Your task to perform on an android device: open device folders in google photos Image 0: 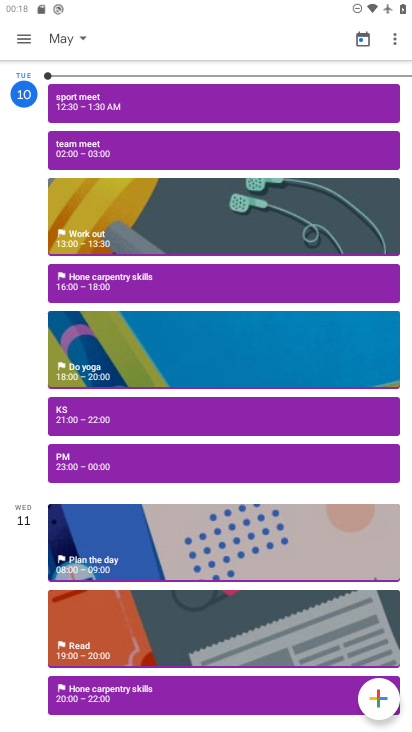
Step 0: press home button
Your task to perform on an android device: open device folders in google photos Image 1: 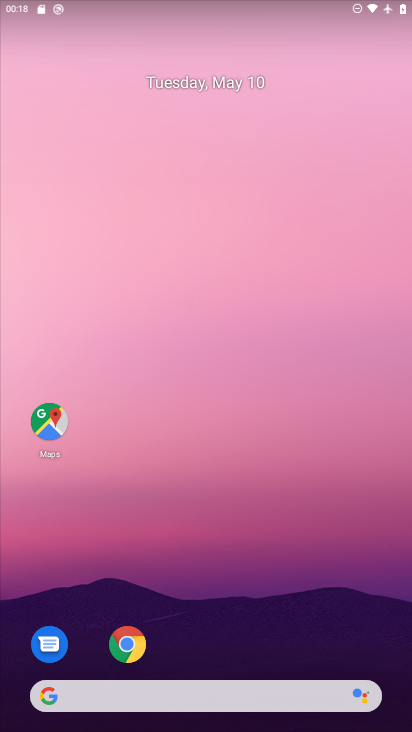
Step 1: drag from (202, 600) to (204, 251)
Your task to perform on an android device: open device folders in google photos Image 2: 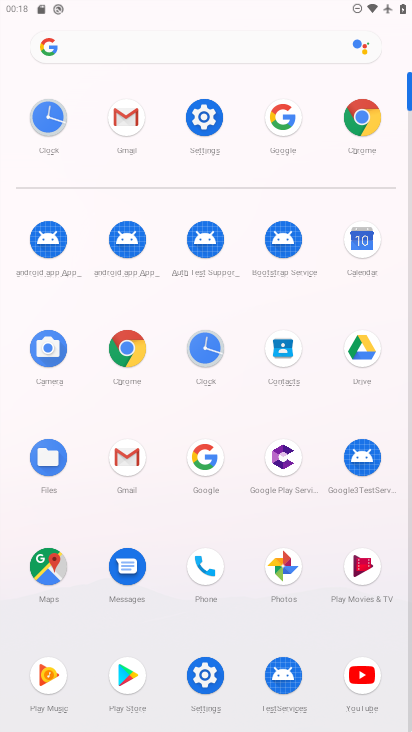
Step 2: click (270, 565)
Your task to perform on an android device: open device folders in google photos Image 3: 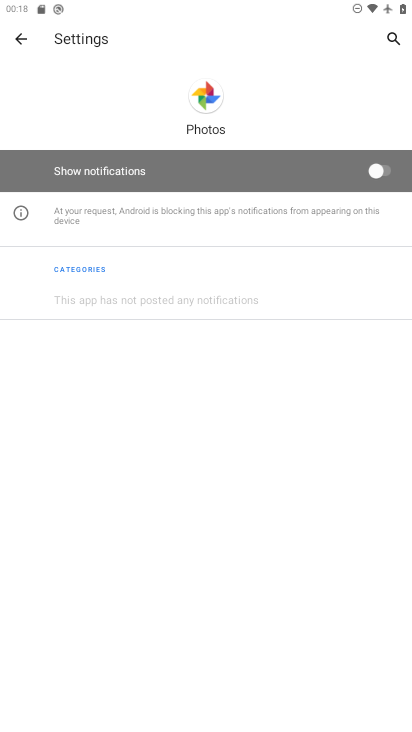
Step 3: click (24, 38)
Your task to perform on an android device: open device folders in google photos Image 4: 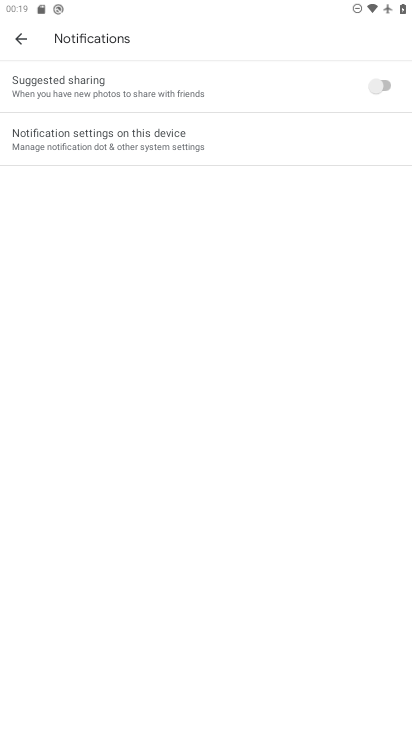
Step 4: click (28, 33)
Your task to perform on an android device: open device folders in google photos Image 5: 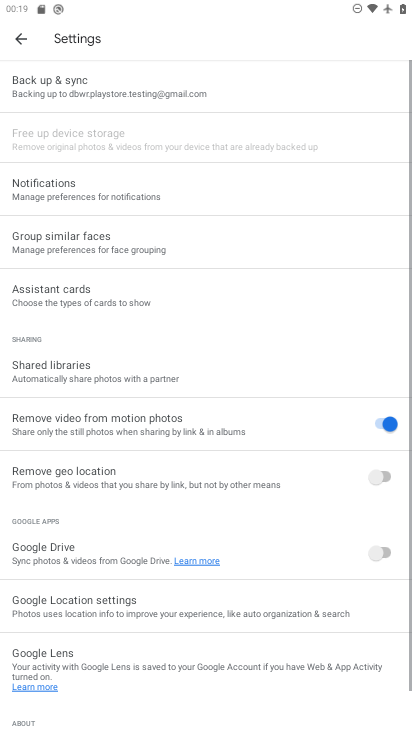
Step 5: click (28, 33)
Your task to perform on an android device: open device folders in google photos Image 6: 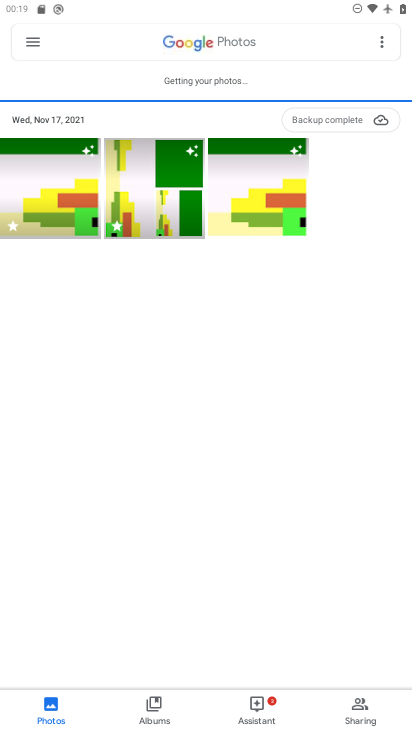
Step 6: click (35, 46)
Your task to perform on an android device: open device folders in google photos Image 7: 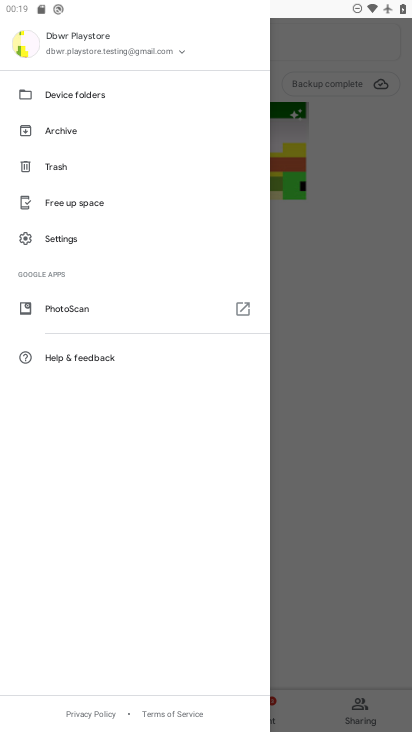
Step 7: click (104, 98)
Your task to perform on an android device: open device folders in google photos Image 8: 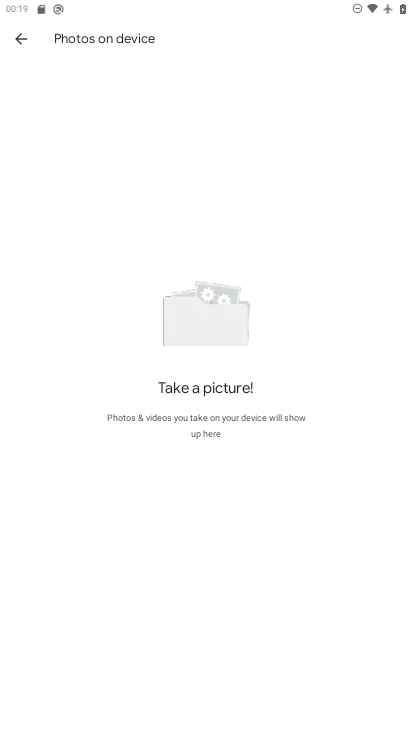
Step 8: task complete